Your task to perform on an android device: What's the weather going to be this weekend? Image 0: 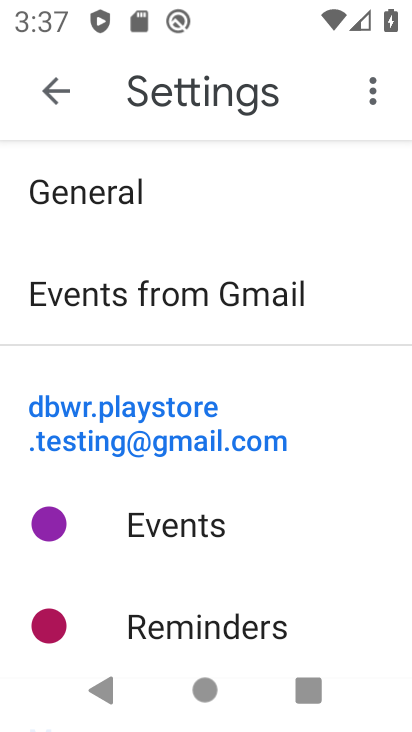
Step 0: press home button
Your task to perform on an android device: What's the weather going to be this weekend? Image 1: 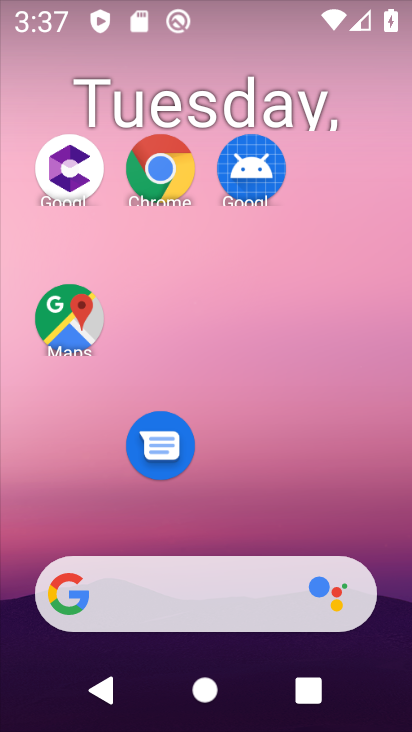
Step 1: drag from (30, 243) to (407, 260)
Your task to perform on an android device: What's the weather going to be this weekend? Image 2: 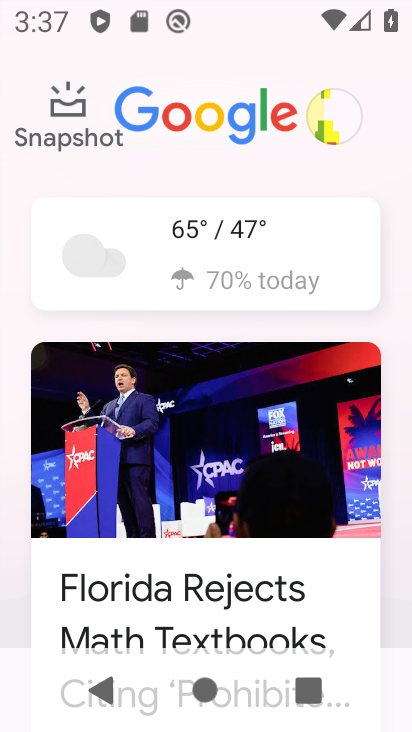
Step 2: click (209, 245)
Your task to perform on an android device: What's the weather going to be this weekend? Image 3: 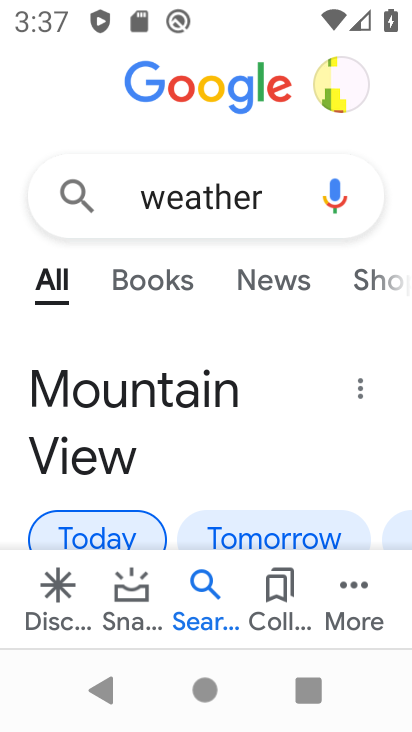
Step 3: drag from (222, 510) to (200, 184)
Your task to perform on an android device: What's the weather going to be this weekend? Image 4: 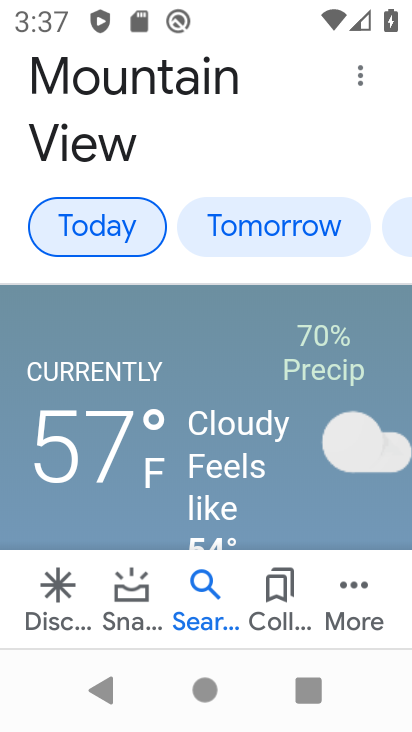
Step 4: click (282, 233)
Your task to perform on an android device: What's the weather going to be this weekend? Image 5: 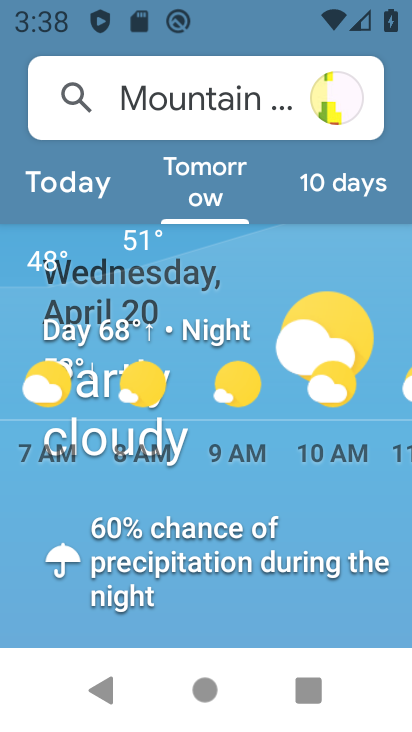
Step 5: drag from (239, 465) to (241, 102)
Your task to perform on an android device: What's the weather going to be this weekend? Image 6: 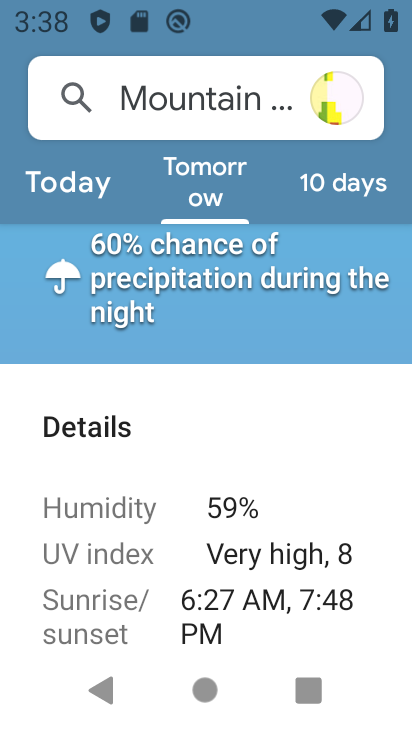
Step 6: drag from (250, 589) to (190, 71)
Your task to perform on an android device: What's the weather going to be this weekend? Image 7: 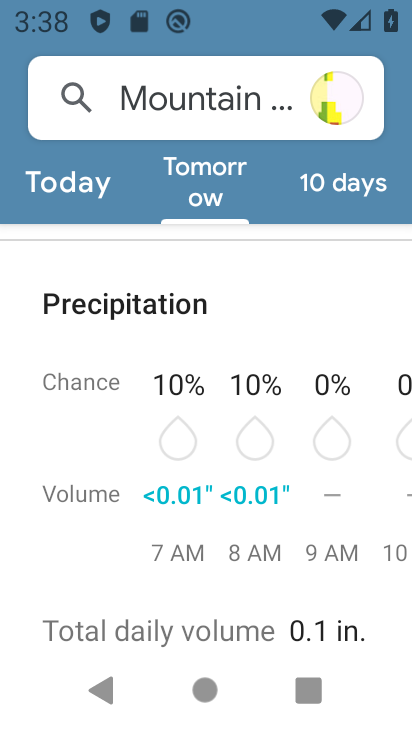
Step 7: drag from (204, 530) to (176, 154)
Your task to perform on an android device: What's the weather going to be this weekend? Image 8: 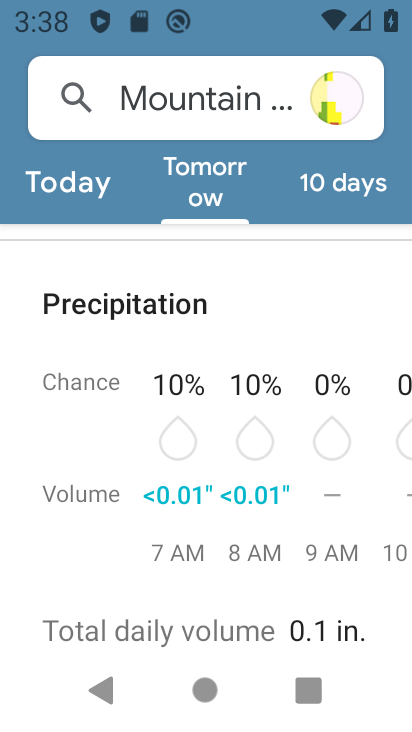
Step 8: click (350, 182)
Your task to perform on an android device: What's the weather going to be this weekend? Image 9: 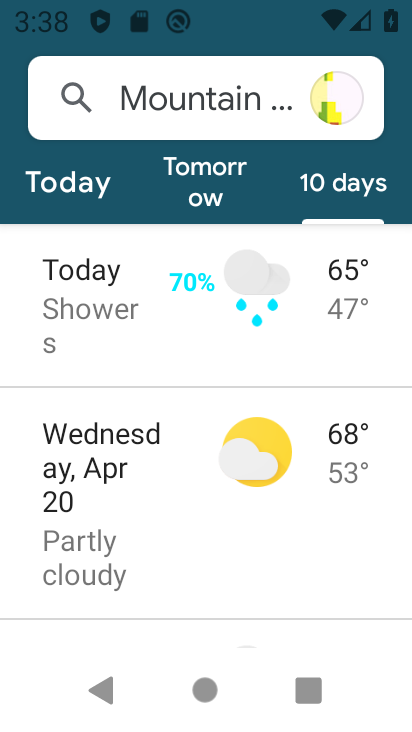
Step 9: task complete